Your task to perform on an android device: toggle priority inbox in the gmail app Image 0: 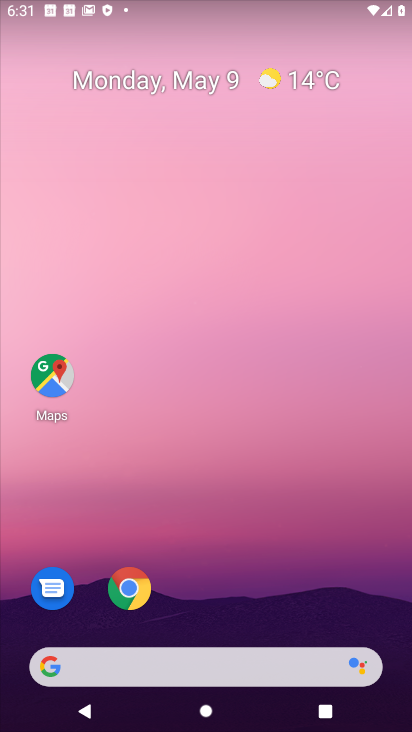
Step 0: drag from (302, 619) to (261, 62)
Your task to perform on an android device: toggle priority inbox in the gmail app Image 1: 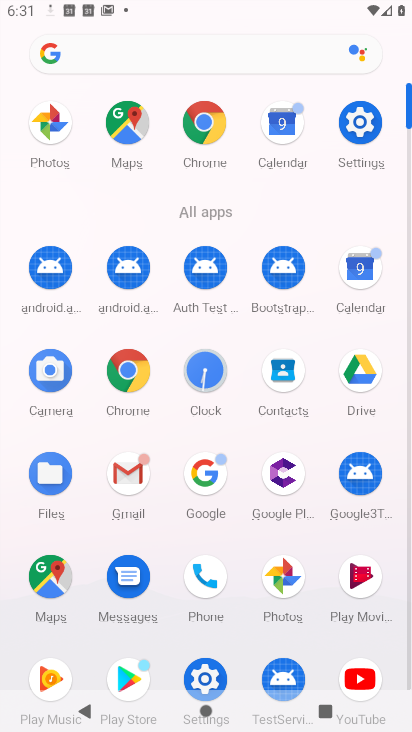
Step 1: click (146, 488)
Your task to perform on an android device: toggle priority inbox in the gmail app Image 2: 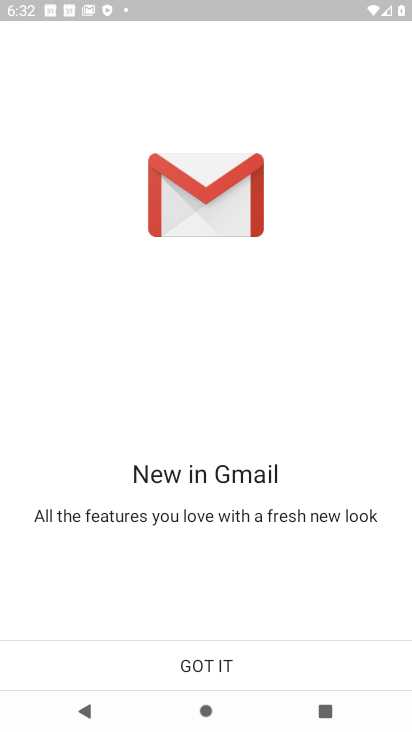
Step 2: click (199, 654)
Your task to perform on an android device: toggle priority inbox in the gmail app Image 3: 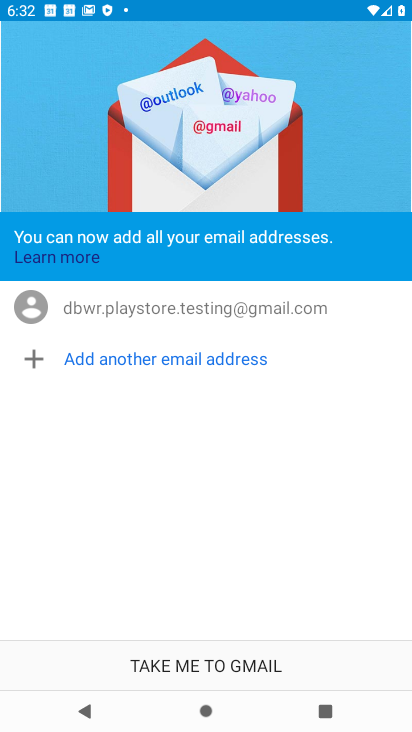
Step 3: click (199, 654)
Your task to perform on an android device: toggle priority inbox in the gmail app Image 4: 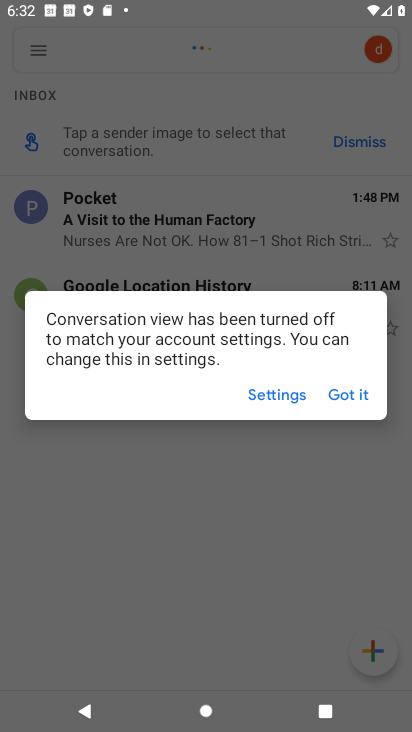
Step 4: click (371, 389)
Your task to perform on an android device: toggle priority inbox in the gmail app Image 5: 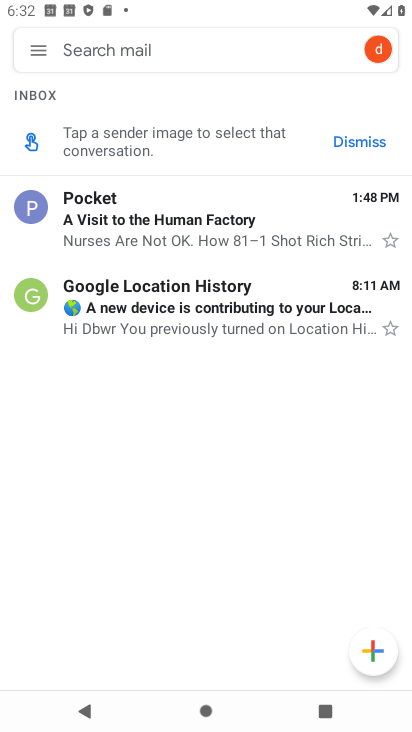
Step 5: click (39, 42)
Your task to perform on an android device: toggle priority inbox in the gmail app Image 6: 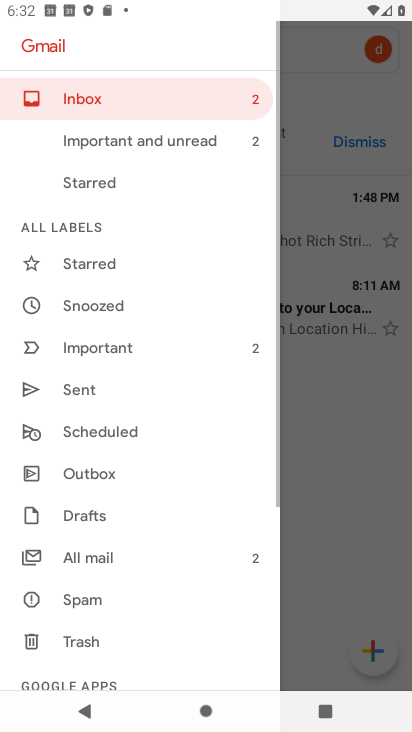
Step 6: drag from (131, 647) to (193, 183)
Your task to perform on an android device: toggle priority inbox in the gmail app Image 7: 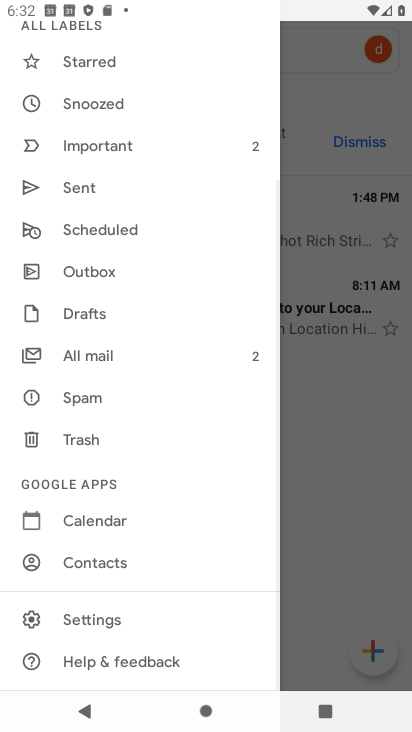
Step 7: click (125, 633)
Your task to perform on an android device: toggle priority inbox in the gmail app Image 8: 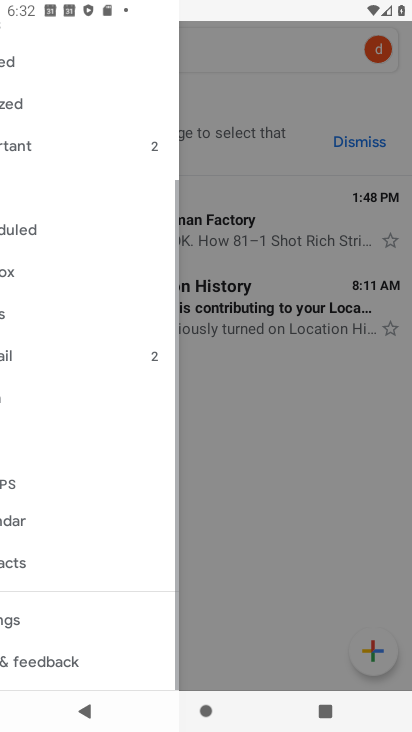
Step 8: click (125, 633)
Your task to perform on an android device: toggle priority inbox in the gmail app Image 9: 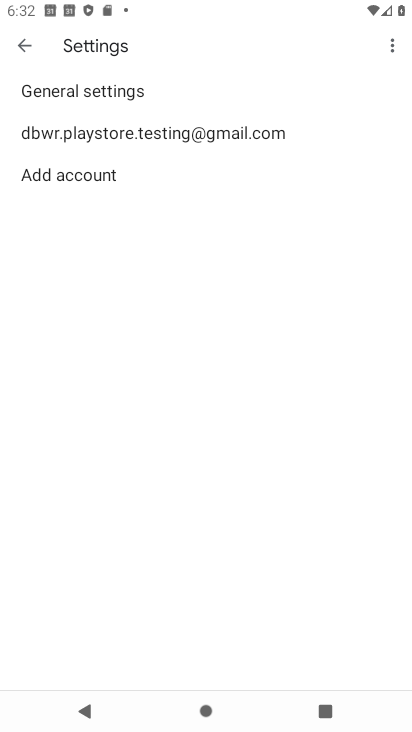
Step 9: click (221, 134)
Your task to perform on an android device: toggle priority inbox in the gmail app Image 10: 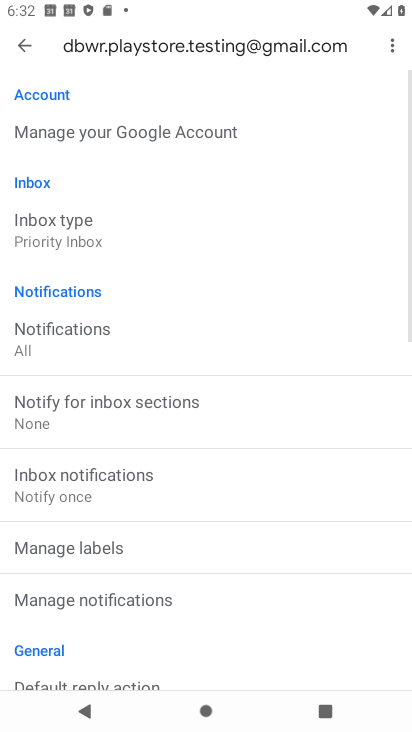
Step 10: click (138, 228)
Your task to perform on an android device: toggle priority inbox in the gmail app Image 11: 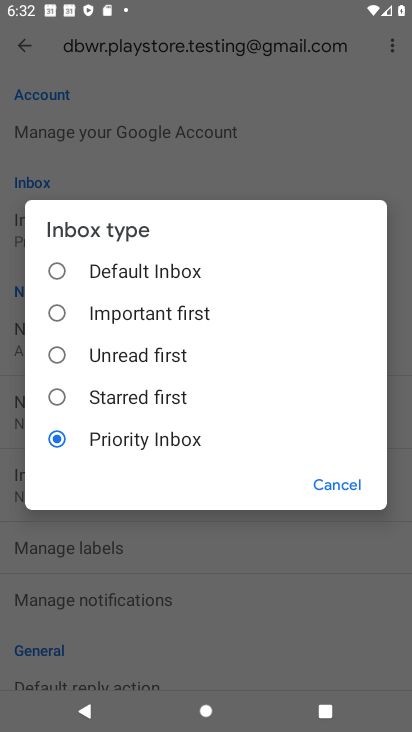
Step 11: click (185, 270)
Your task to perform on an android device: toggle priority inbox in the gmail app Image 12: 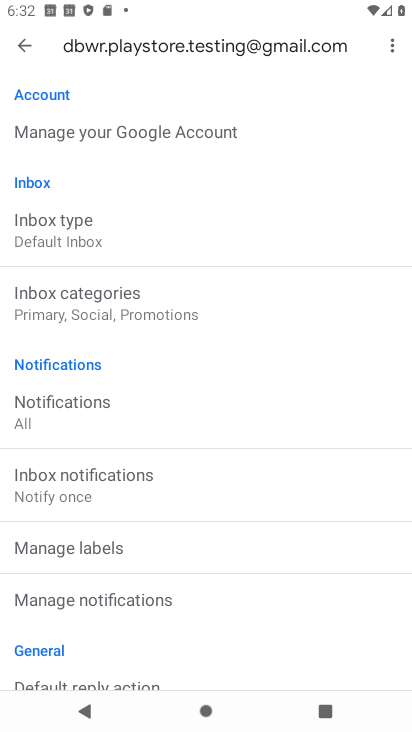
Step 12: task complete